Your task to perform on an android device: toggle airplane mode Image 0: 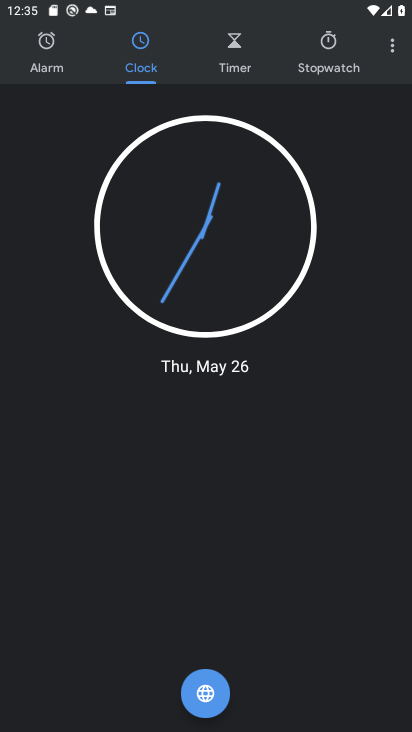
Step 0: press home button
Your task to perform on an android device: toggle airplane mode Image 1: 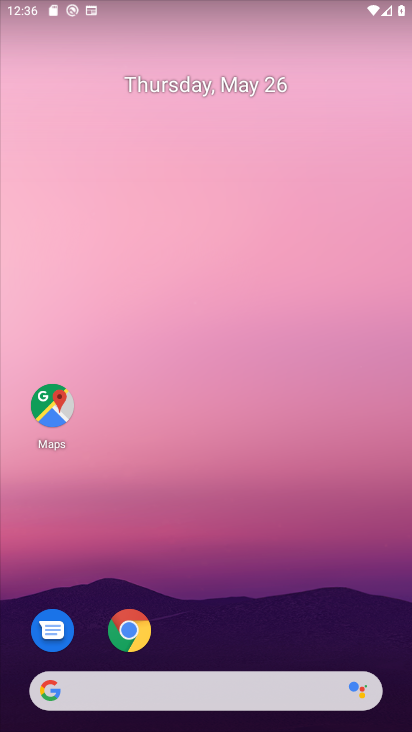
Step 1: drag from (234, 5) to (259, 326)
Your task to perform on an android device: toggle airplane mode Image 2: 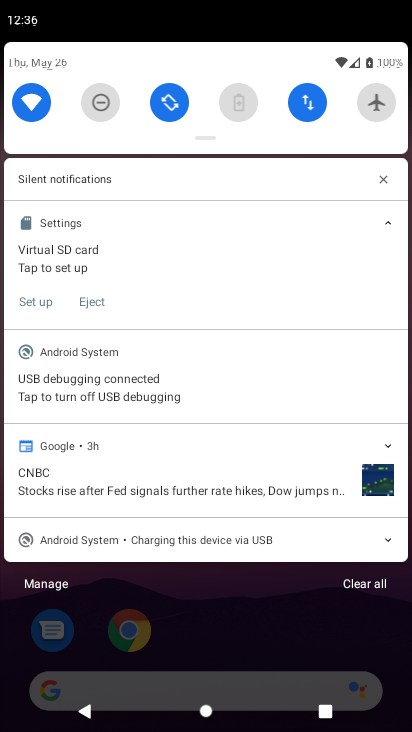
Step 2: click (374, 98)
Your task to perform on an android device: toggle airplane mode Image 3: 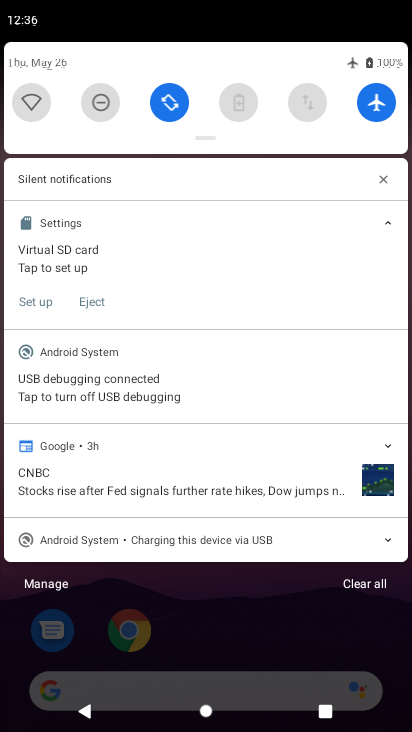
Step 3: click (368, 581)
Your task to perform on an android device: toggle airplane mode Image 4: 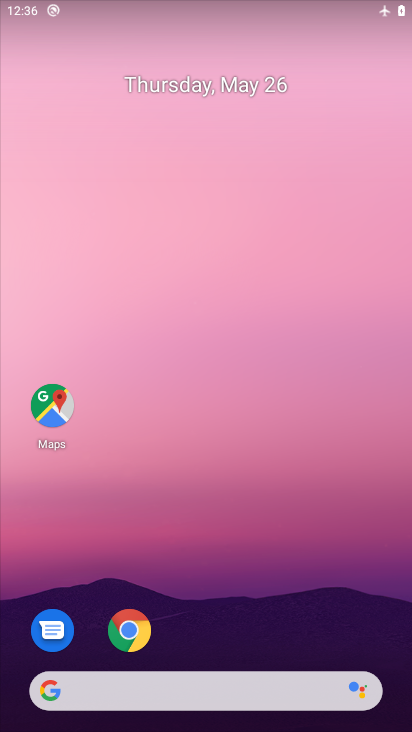
Step 4: task complete